Your task to perform on an android device: allow cookies in the chrome app Image 0: 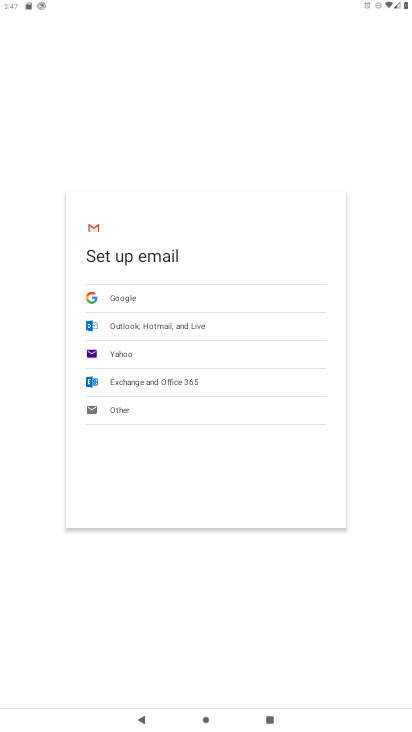
Step 0: press home button
Your task to perform on an android device: allow cookies in the chrome app Image 1: 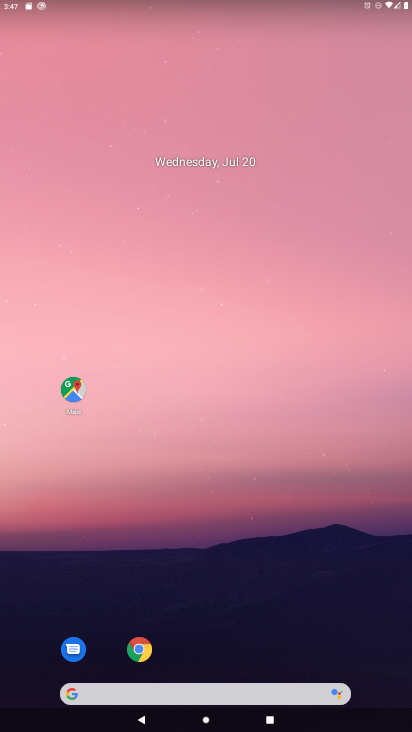
Step 1: click (139, 649)
Your task to perform on an android device: allow cookies in the chrome app Image 2: 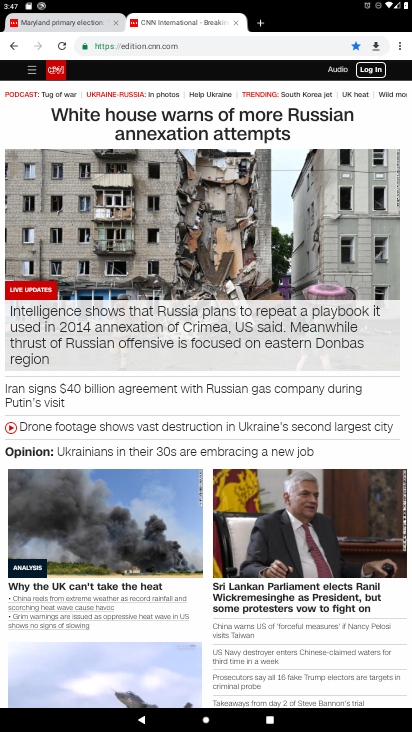
Step 2: click (400, 47)
Your task to perform on an android device: allow cookies in the chrome app Image 3: 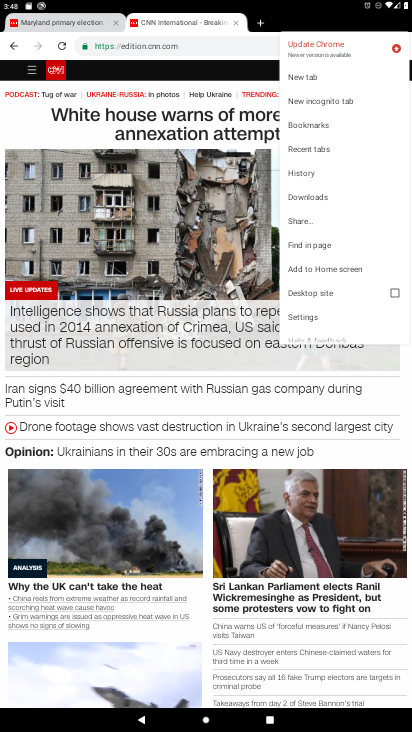
Step 3: click (304, 317)
Your task to perform on an android device: allow cookies in the chrome app Image 4: 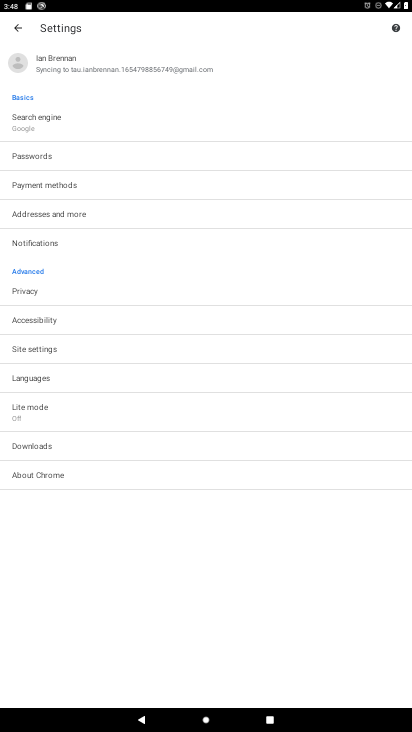
Step 4: click (36, 348)
Your task to perform on an android device: allow cookies in the chrome app Image 5: 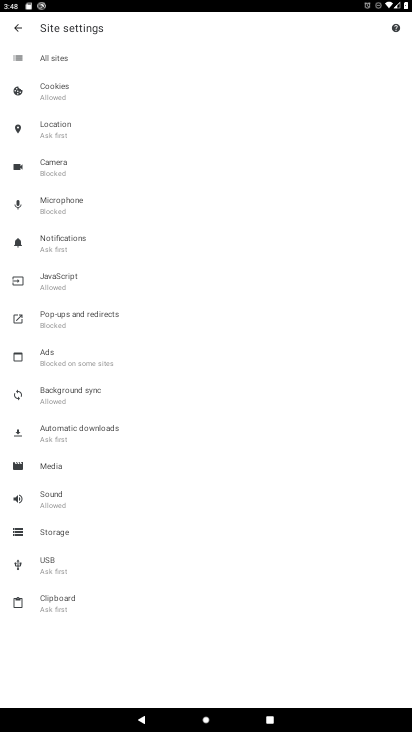
Step 5: click (57, 94)
Your task to perform on an android device: allow cookies in the chrome app Image 6: 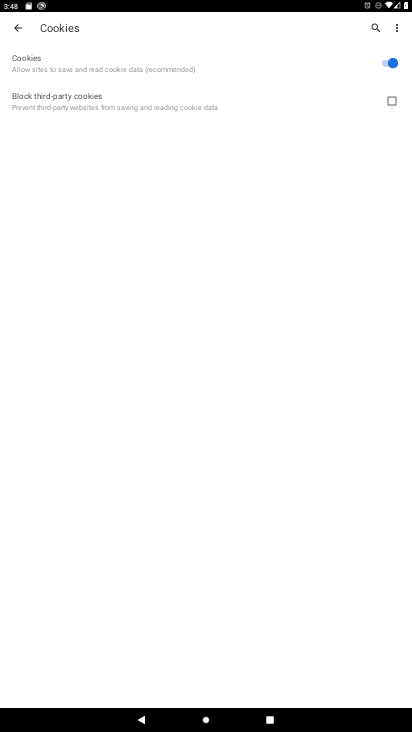
Step 6: click (389, 100)
Your task to perform on an android device: allow cookies in the chrome app Image 7: 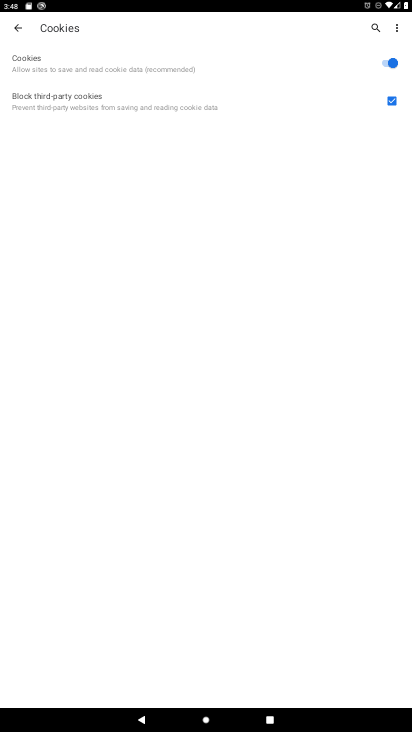
Step 7: task complete